Your task to perform on an android device: Search for sushi restaurants on Maps Image 0: 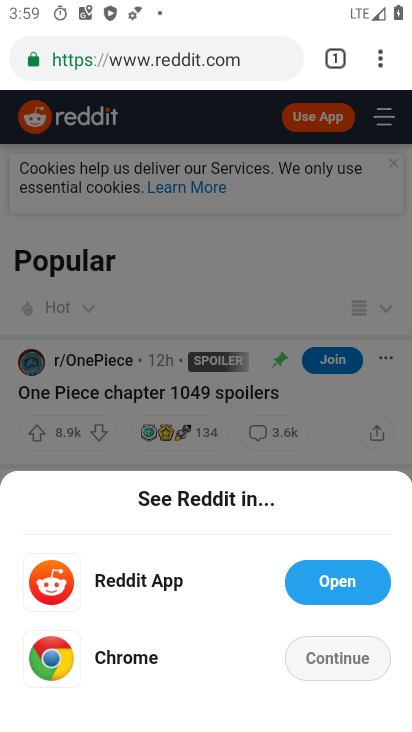
Step 0: press home button
Your task to perform on an android device: Search for sushi restaurants on Maps Image 1: 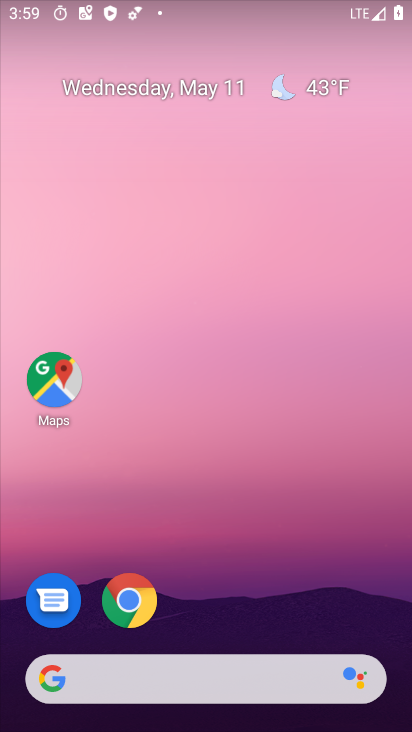
Step 1: click (59, 376)
Your task to perform on an android device: Search for sushi restaurants on Maps Image 2: 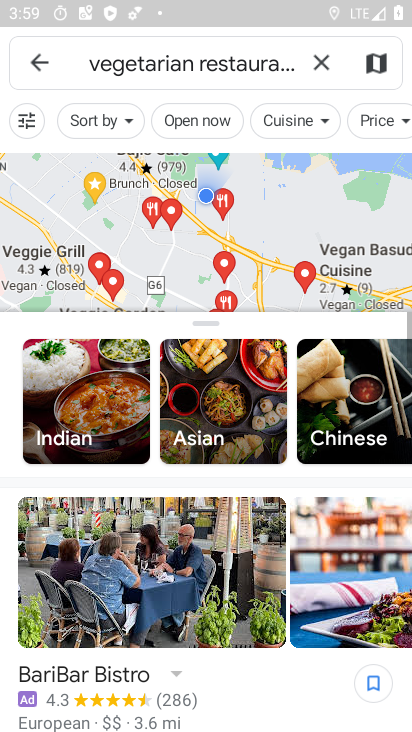
Step 2: click (315, 58)
Your task to perform on an android device: Search for sushi restaurants on Maps Image 3: 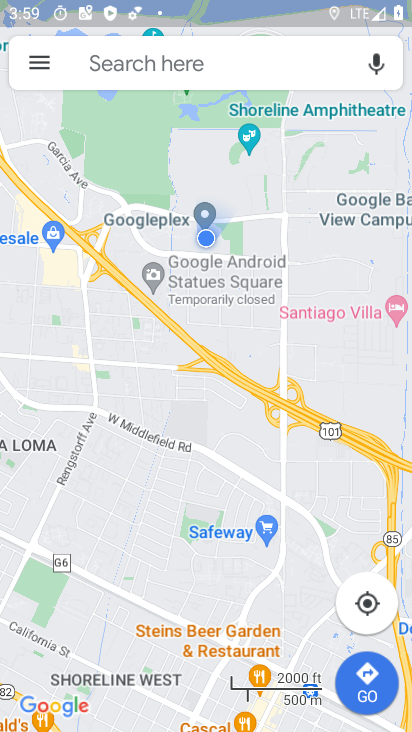
Step 3: click (105, 65)
Your task to perform on an android device: Search for sushi restaurants on Maps Image 4: 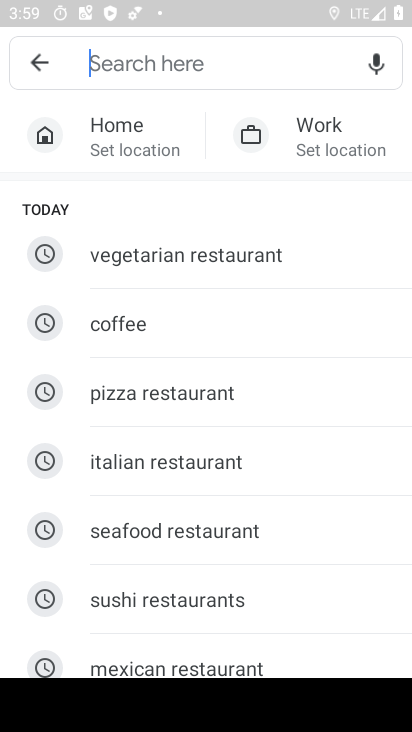
Step 4: type "sushi restaurant"
Your task to perform on an android device: Search for sushi restaurants on Maps Image 5: 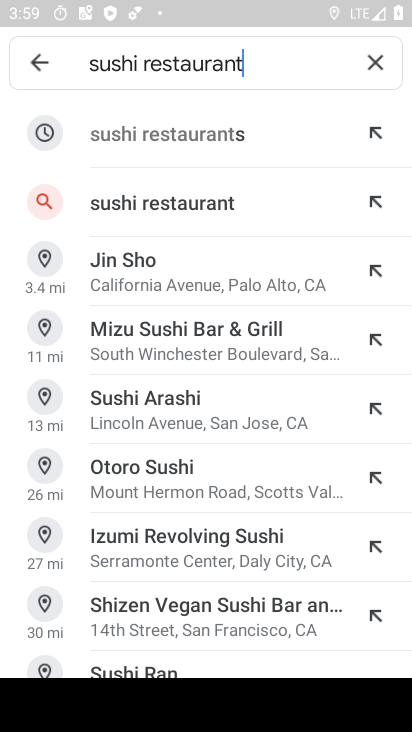
Step 5: click (117, 199)
Your task to perform on an android device: Search for sushi restaurants on Maps Image 6: 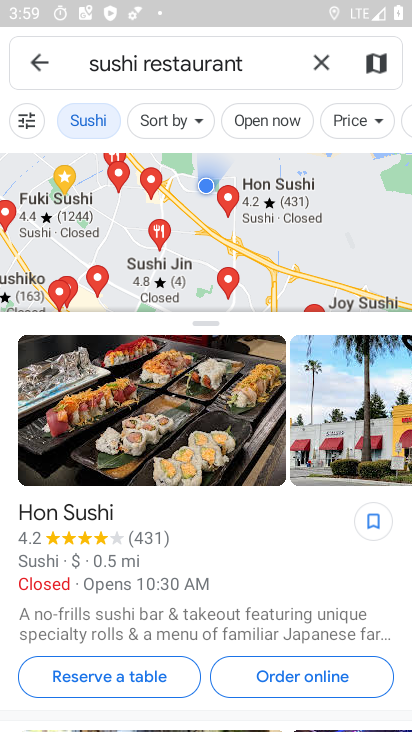
Step 6: task complete